Your task to perform on an android device: Go to eBay Image 0: 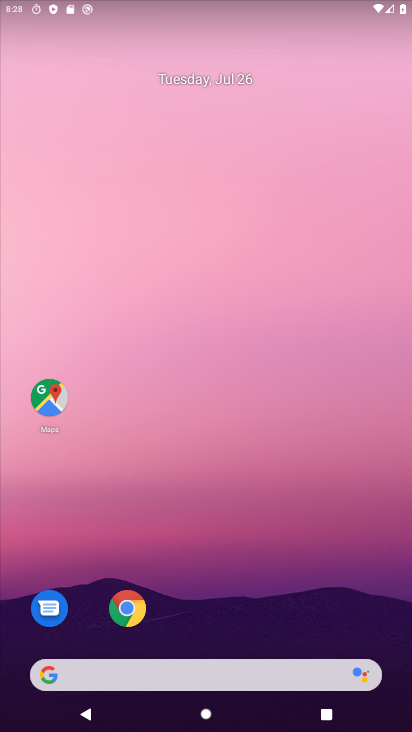
Step 0: drag from (223, 674) to (239, 60)
Your task to perform on an android device: Go to eBay Image 1: 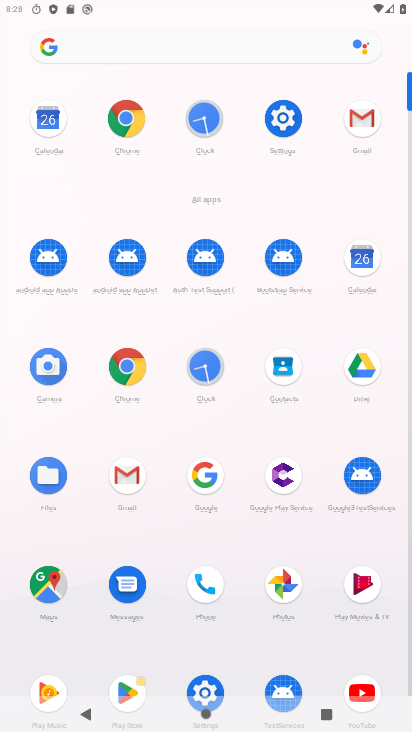
Step 1: click (124, 349)
Your task to perform on an android device: Go to eBay Image 2: 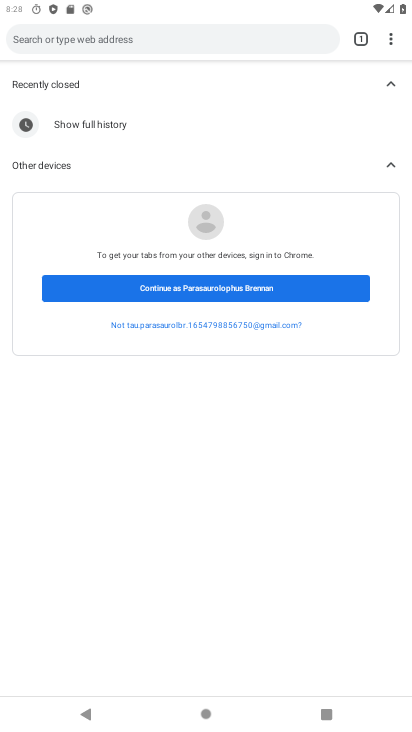
Step 2: click (198, 31)
Your task to perform on an android device: Go to eBay Image 3: 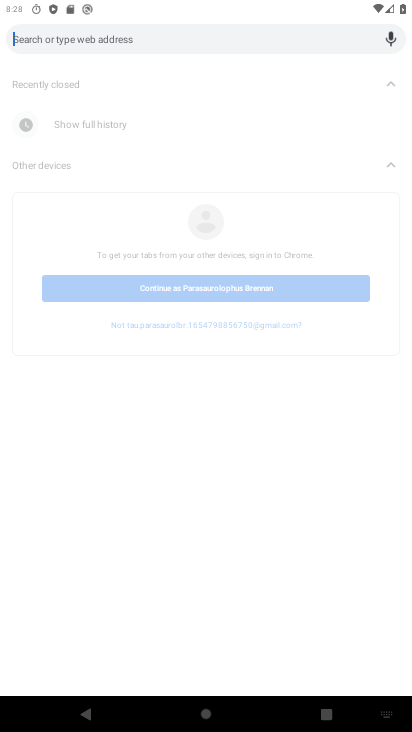
Step 3: type "ebay"
Your task to perform on an android device: Go to eBay Image 4: 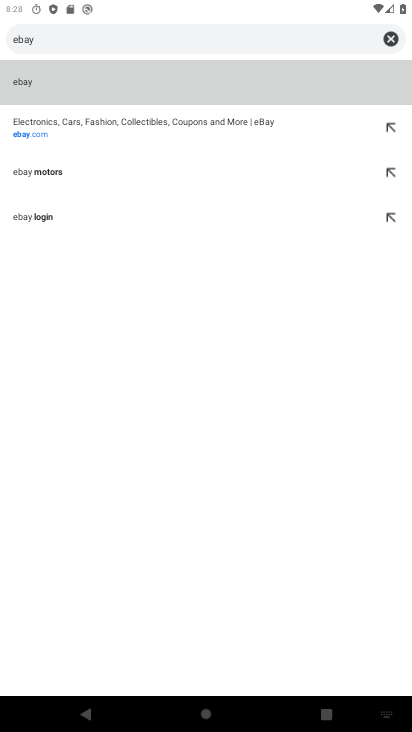
Step 4: click (75, 128)
Your task to perform on an android device: Go to eBay Image 5: 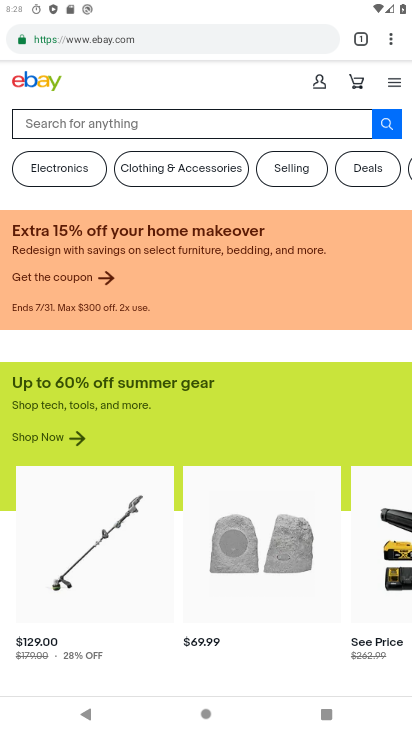
Step 5: task complete